Your task to perform on an android device: turn on notifications settings in the gmail app Image 0: 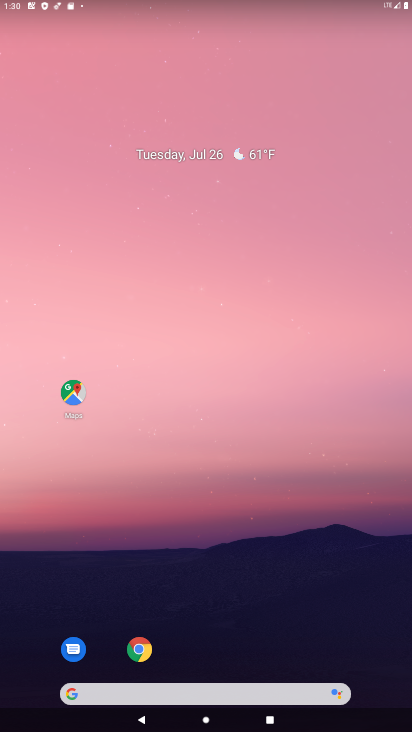
Step 0: drag from (194, 602) to (192, 232)
Your task to perform on an android device: turn on notifications settings in the gmail app Image 1: 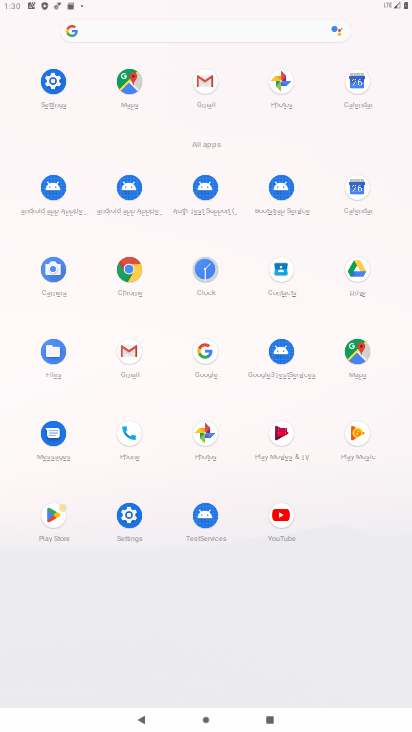
Step 1: click (129, 351)
Your task to perform on an android device: turn on notifications settings in the gmail app Image 2: 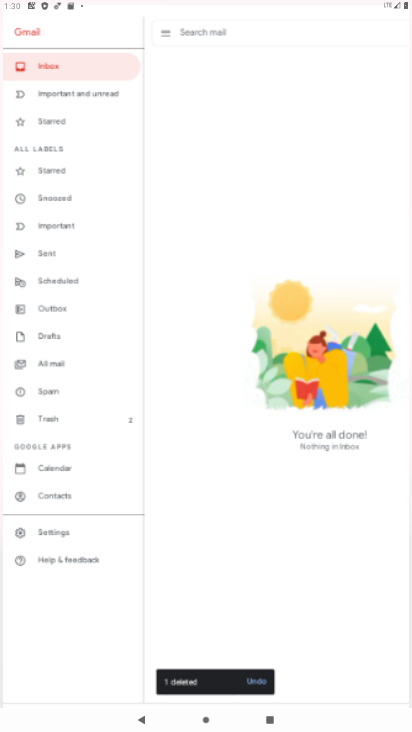
Step 2: click (129, 351)
Your task to perform on an android device: turn on notifications settings in the gmail app Image 3: 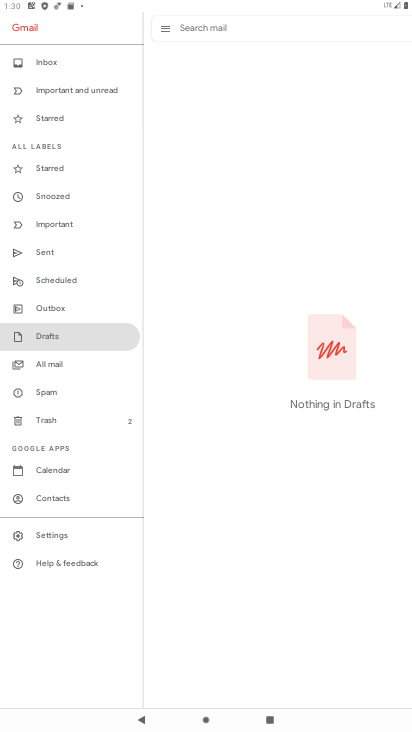
Step 3: click (45, 540)
Your task to perform on an android device: turn on notifications settings in the gmail app Image 4: 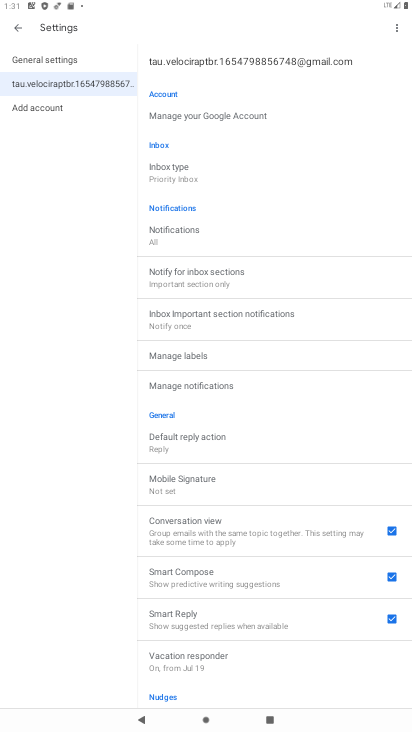
Step 4: click (214, 386)
Your task to perform on an android device: turn on notifications settings in the gmail app Image 5: 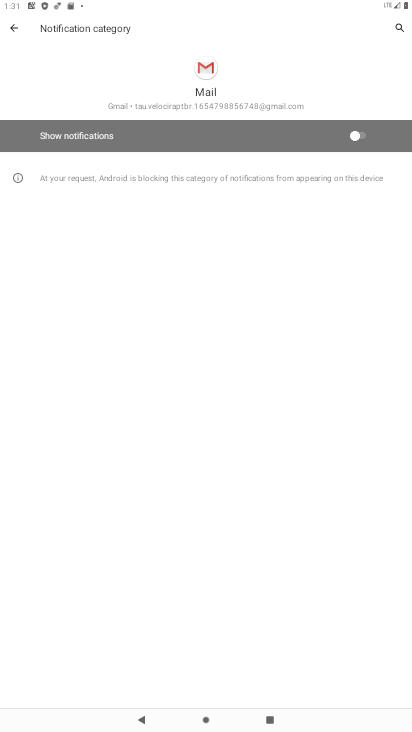
Step 5: click (360, 138)
Your task to perform on an android device: turn on notifications settings in the gmail app Image 6: 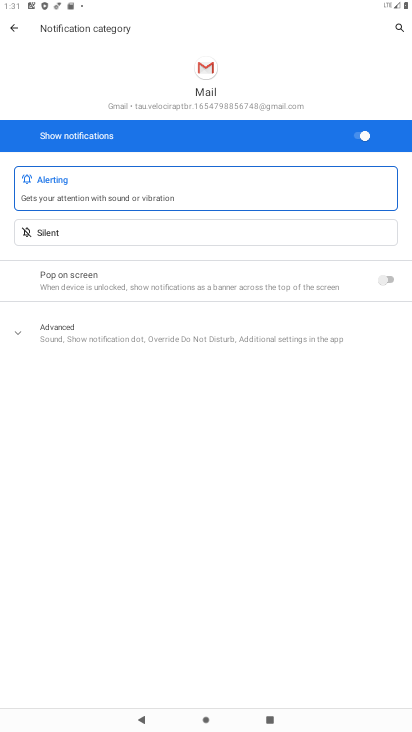
Step 6: task complete